Your task to perform on an android device: Open sound settings Image 0: 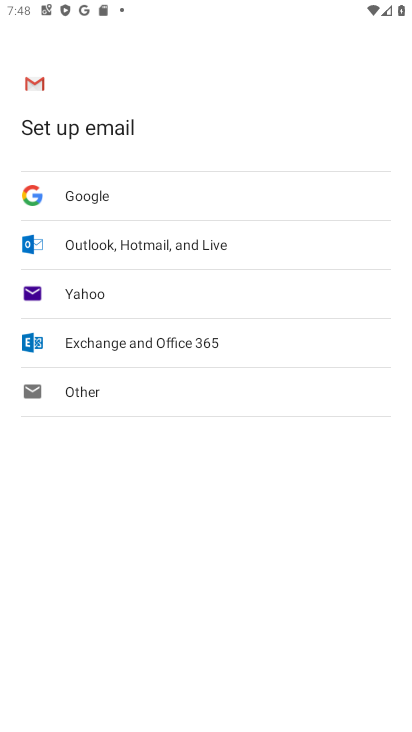
Step 0: press home button
Your task to perform on an android device: Open sound settings Image 1: 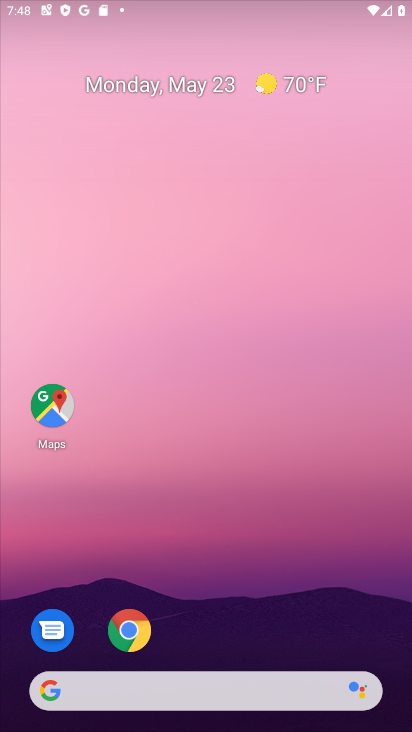
Step 1: drag from (292, 536) to (206, 109)
Your task to perform on an android device: Open sound settings Image 2: 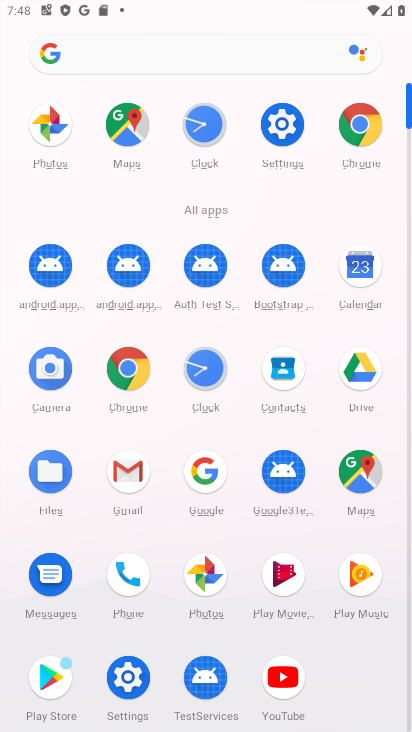
Step 2: click (287, 139)
Your task to perform on an android device: Open sound settings Image 3: 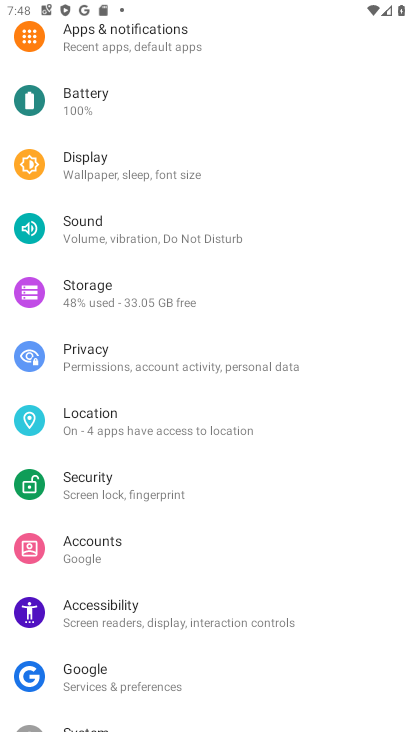
Step 3: click (172, 218)
Your task to perform on an android device: Open sound settings Image 4: 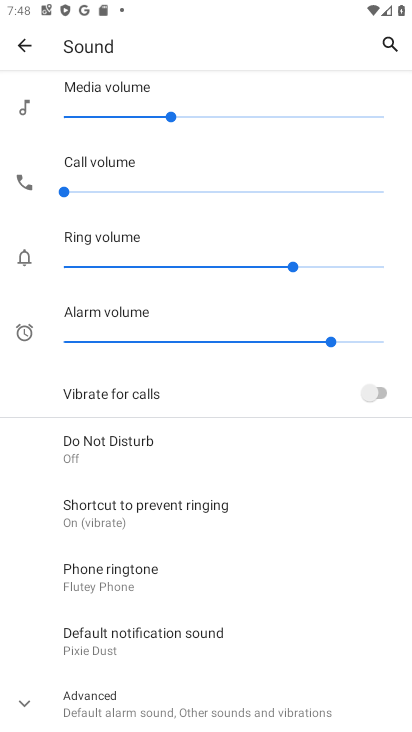
Step 4: task complete